Your task to perform on an android device: find which apps use the phone's location Image 0: 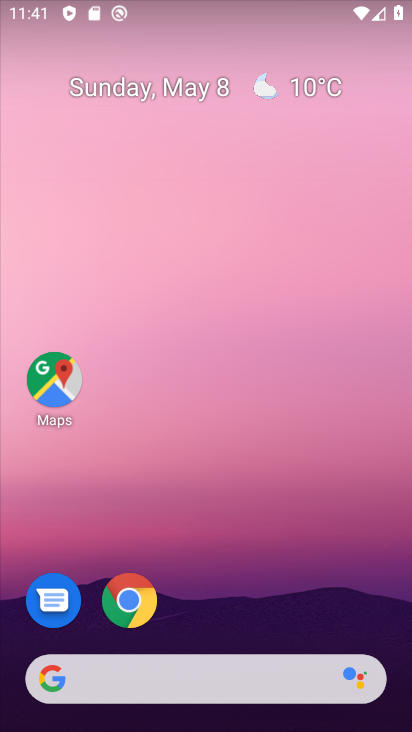
Step 0: click (48, 360)
Your task to perform on an android device: find which apps use the phone's location Image 1: 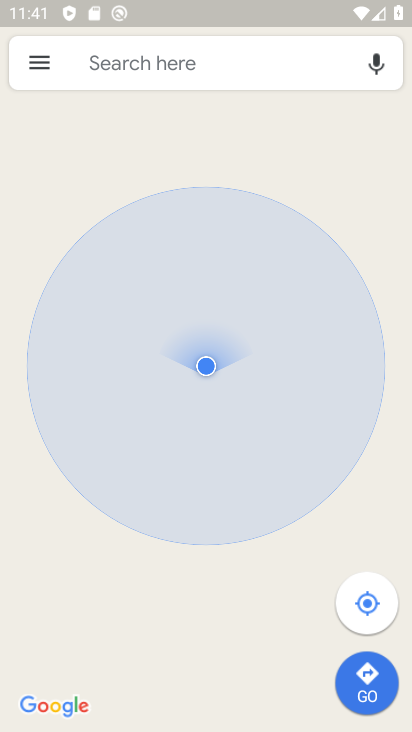
Step 1: task complete